Your task to perform on an android device: turn on improve location accuracy Image 0: 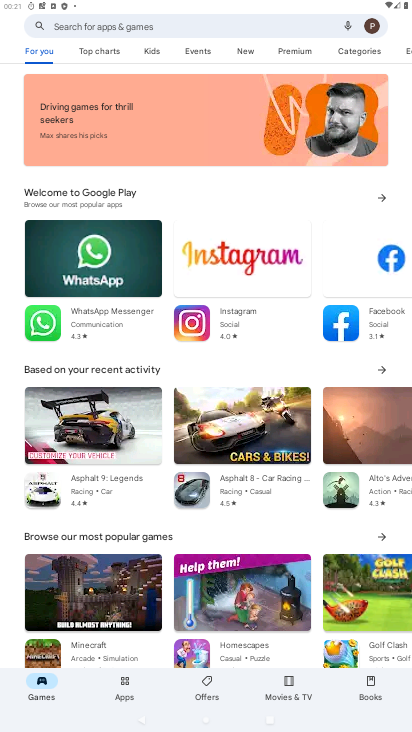
Step 0: press home button
Your task to perform on an android device: turn on improve location accuracy Image 1: 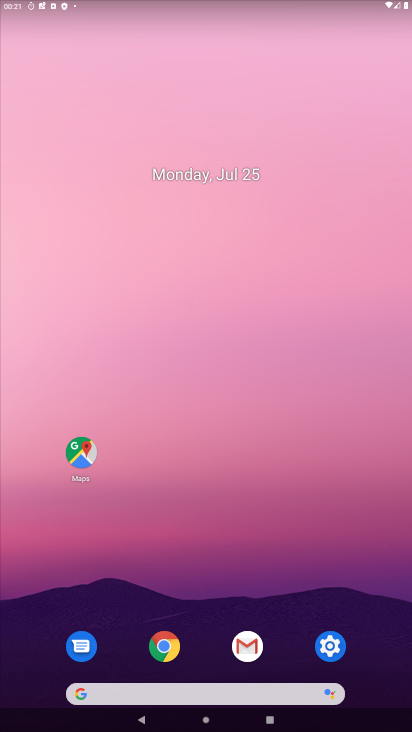
Step 1: click (334, 637)
Your task to perform on an android device: turn on improve location accuracy Image 2: 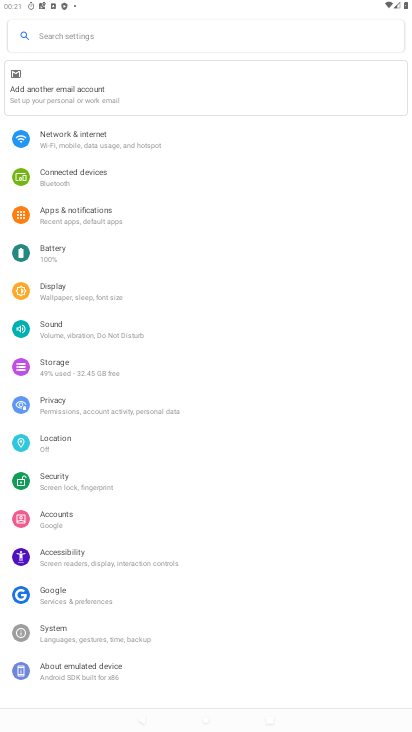
Step 2: click (78, 444)
Your task to perform on an android device: turn on improve location accuracy Image 3: 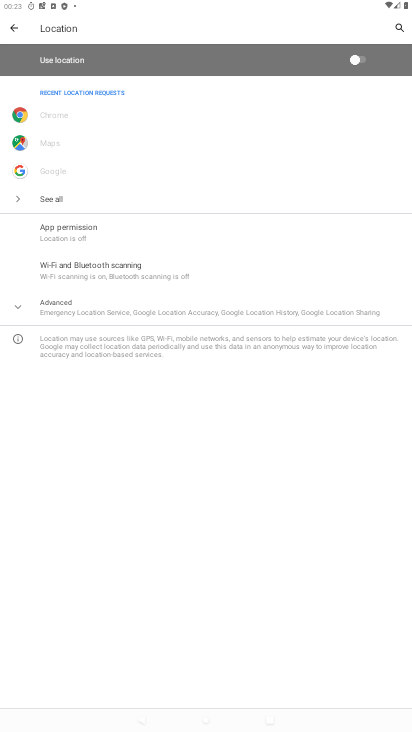
Step 3: task complete